Your task to perform on an android device: toggle location history Image 0: 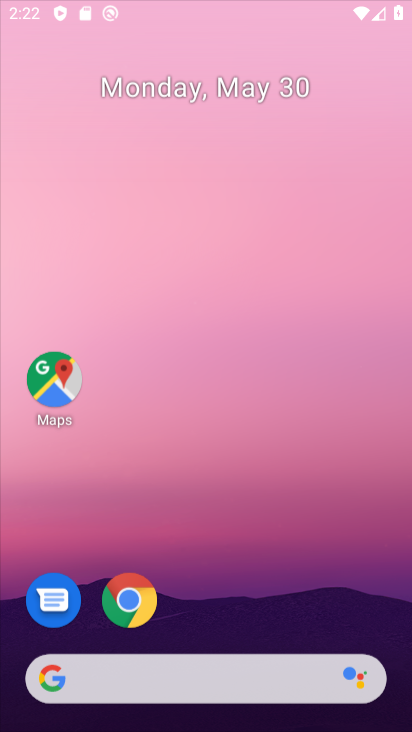
Step 0: click (352, 65)
Your task to perform on an android device: toggle location history Image 1: 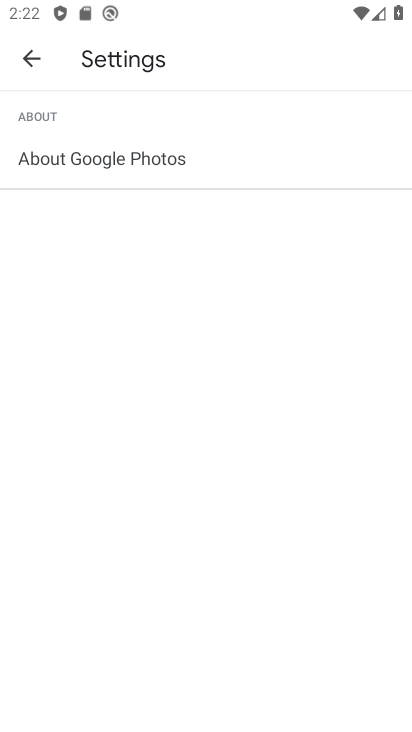
Step 1: press home button
Your task to perform on an android device: toggle location history Image 2: 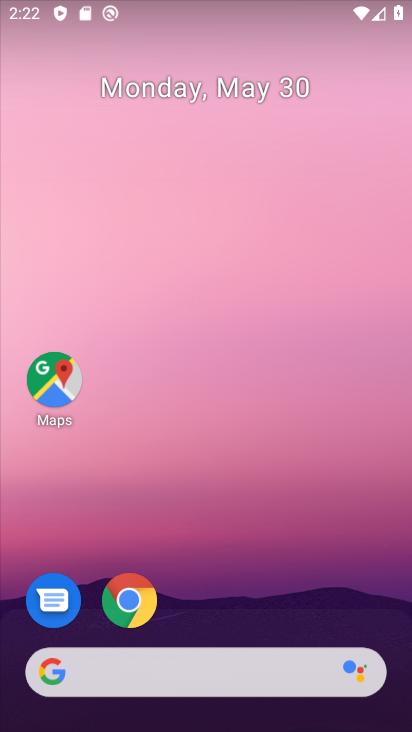
Step 2: drag from (186, 665) to (310, 100)
Your task to perform on an android device: toggle location history Image 3: 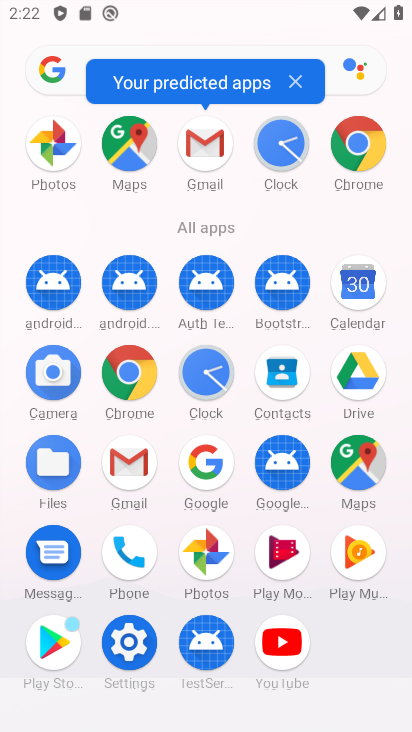
Step 3: click (116, 644)
Your task to perform on an android device: toggle location history Image 4: 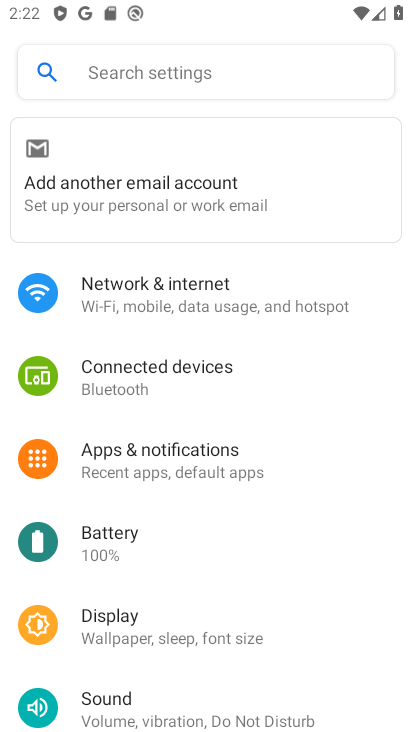
Step 4: drag from (198, 641) to (405, 181)
Your task to perform on an android device: toggle location history Image 5: 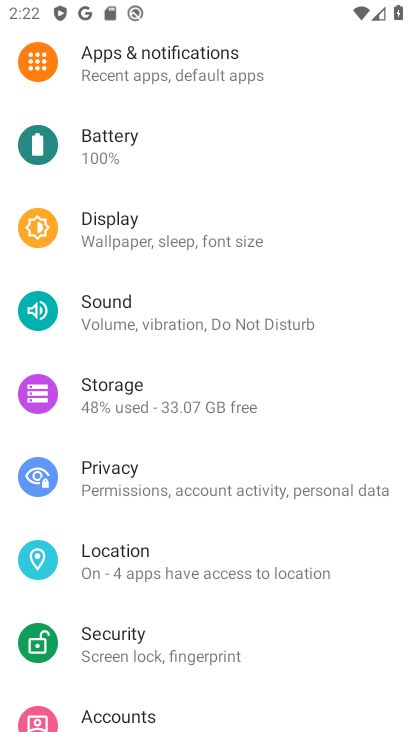
Step 5: drag from (162, 519) to (218, 257)
Your task to perform on an android device: toggle location history Image 6: 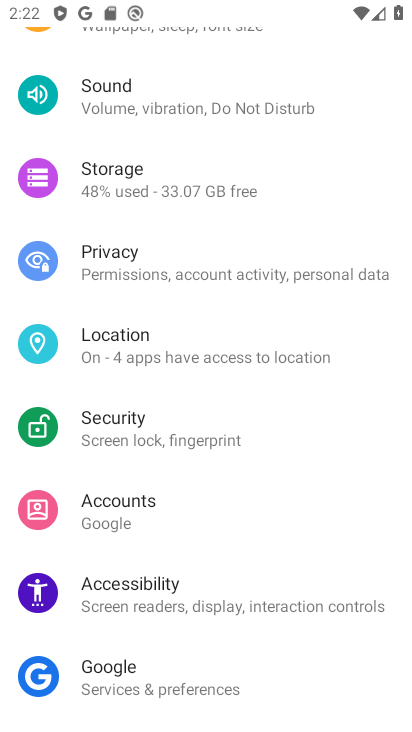
Step 6: click (147, 355)
Your task to perform on an android device: toggle location history Image 7: 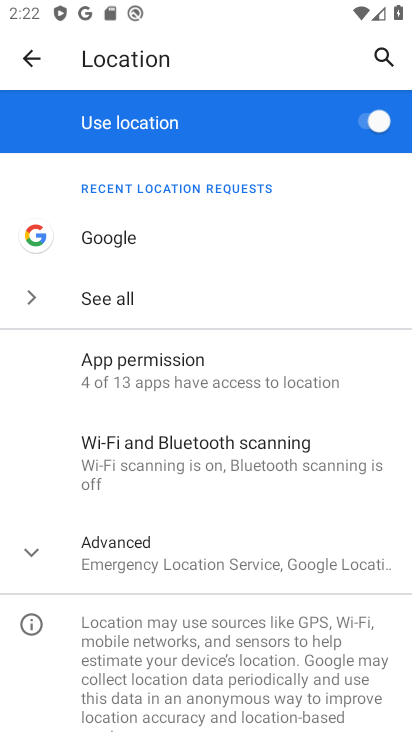
Step 7: click (248, 564)
Your task to perform on an android device: toggle location history Image 8: 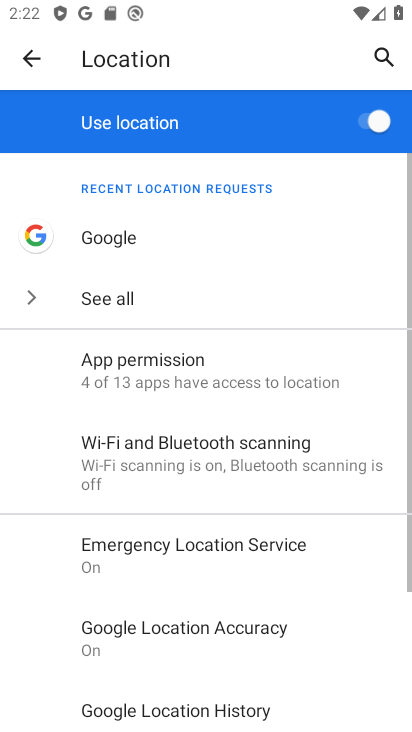
Step 8: drag from (244, 651) to (319, 389)
Your task to perform on an android device: toggle location history Image 9: 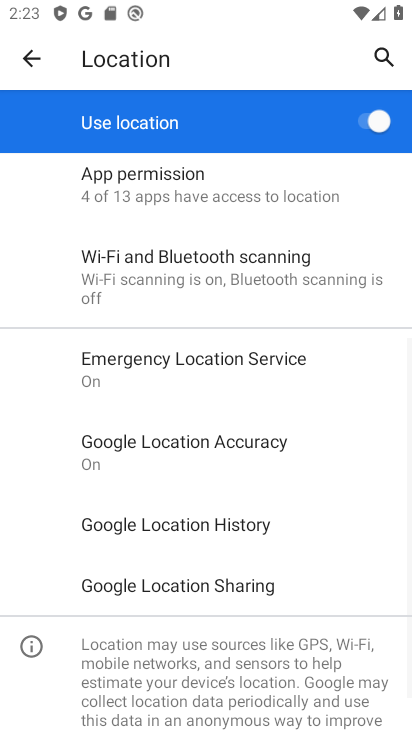
Step 9: click (279, 519)
Your task to perform on an android device: toggle location history Image 10: 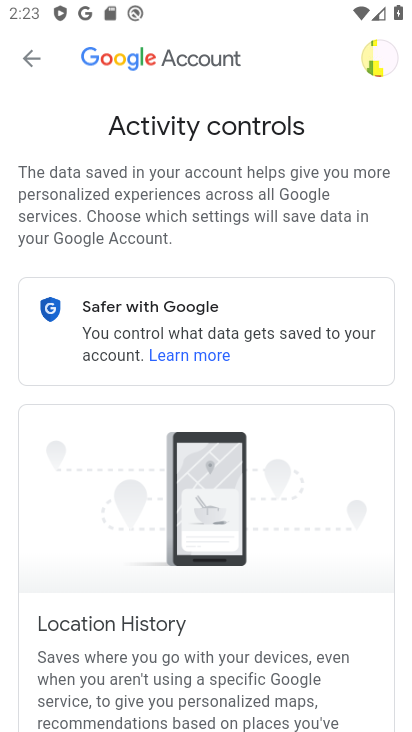
Step 10: drag from (113, 659) to (258, 229)
Your task to perform on an android device: toggle location history Image 11: 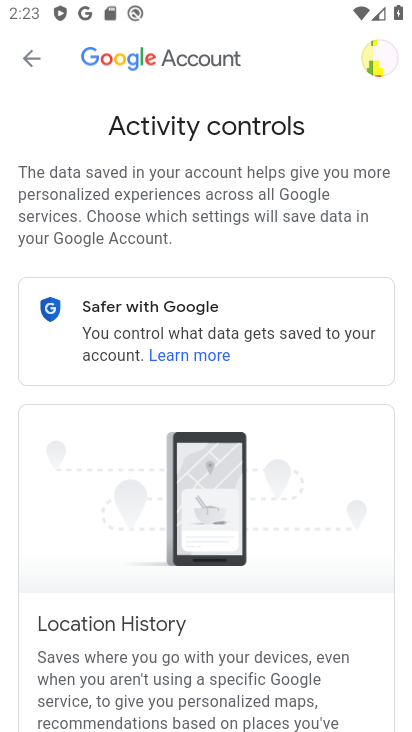
Step 11: drag from (245, 707) to (366, 179)
Your task to perform on an android device: toggle location history Image 12: 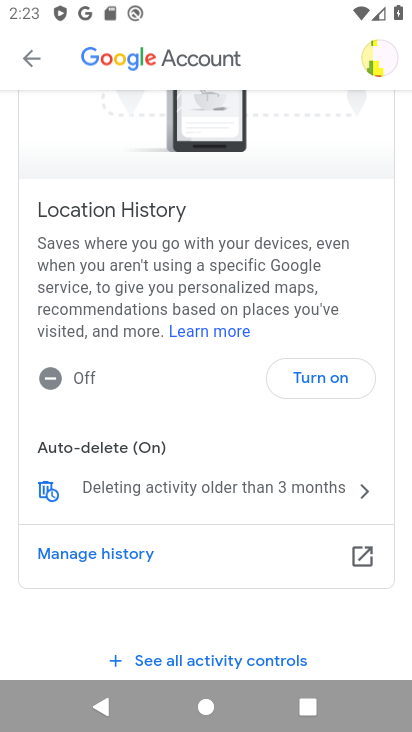
Step 12: click (329, 380)
Your task to perform on an android device: toggle location history Image 13: 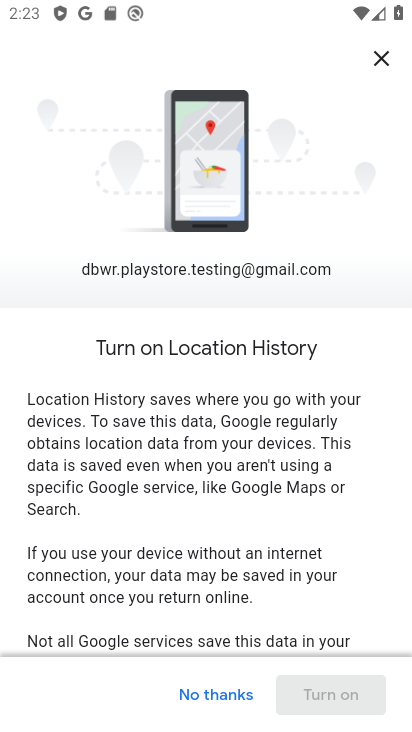
Step 13: drag from (97, 597) to (288, 110)
Your task to perform on an android device: toggle location history Image 14: 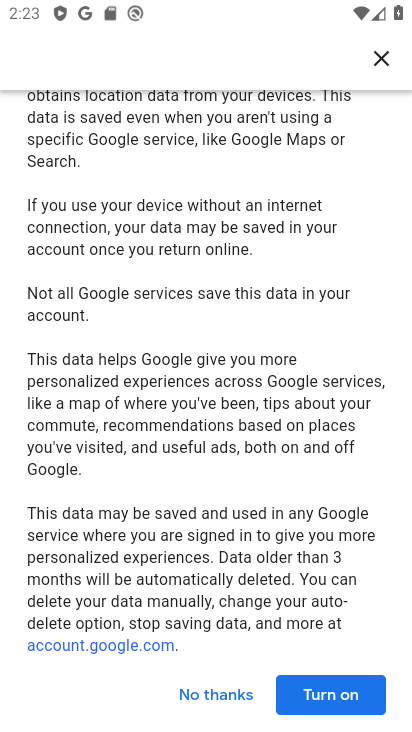
Step 14: click (356, 692)
Your task to perform on an android device: toggle location history Image 15: 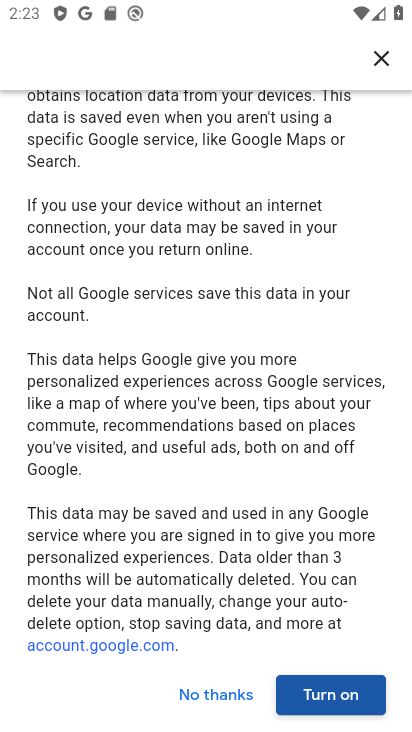
Step 15: click (350, 695)
Your task to perform on an android device: toggle location history Image 16: 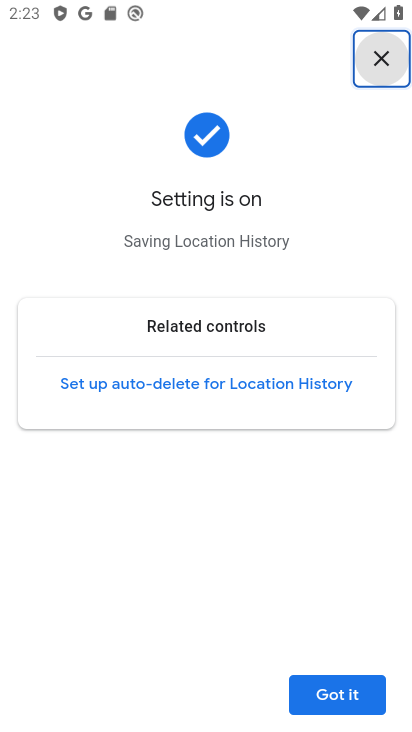
Step 16: click (350, 695)
Your task to perform on an android device: toggle location history Image 17: 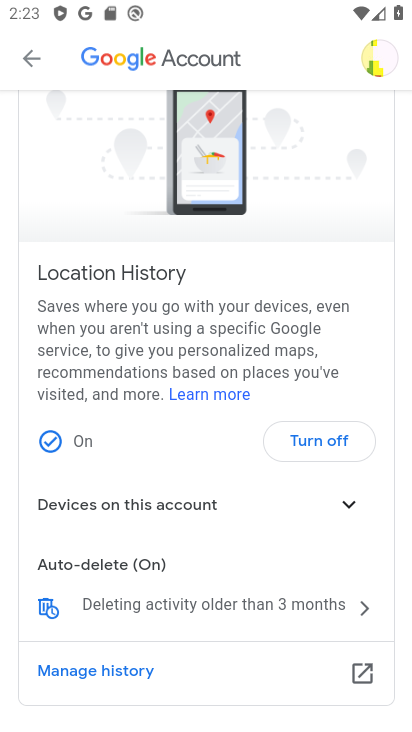
Step 17: task complete